Your task to perform on an android device: toggle translation in the chrome app Image 0: 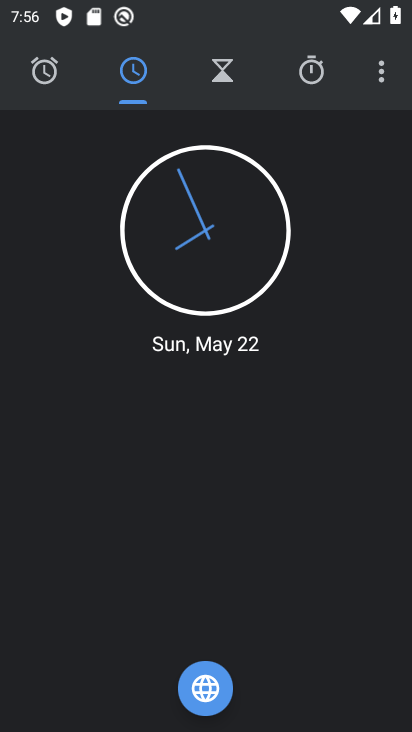
Step 0: press home button
Your task to perform on an android device: toggle translation in the chrome app Image 1: 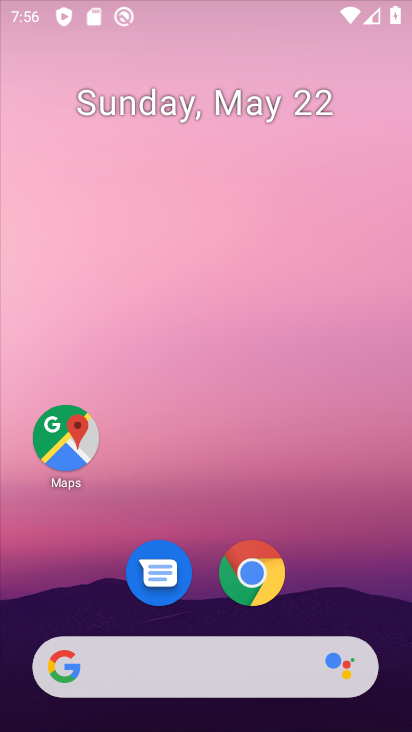
Step 1: drag from (167, 644) to (232, 0)
Your task to perform on an android device: toggle translation in the chrome app Image 2: 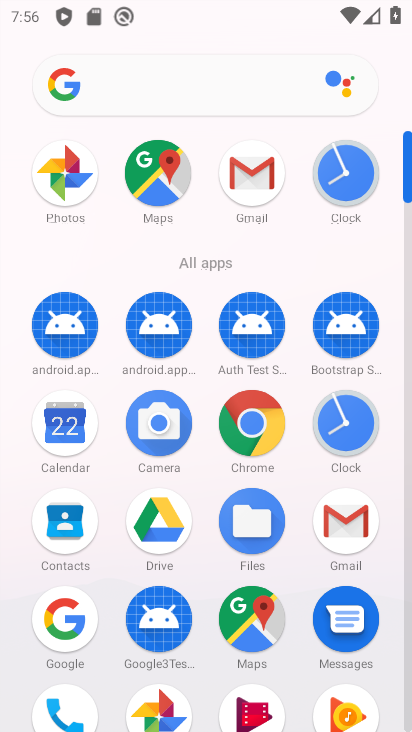
Step 2: click (254, 419)
Your task to perform on an android device: toggle translation in the chrome app Image 3: 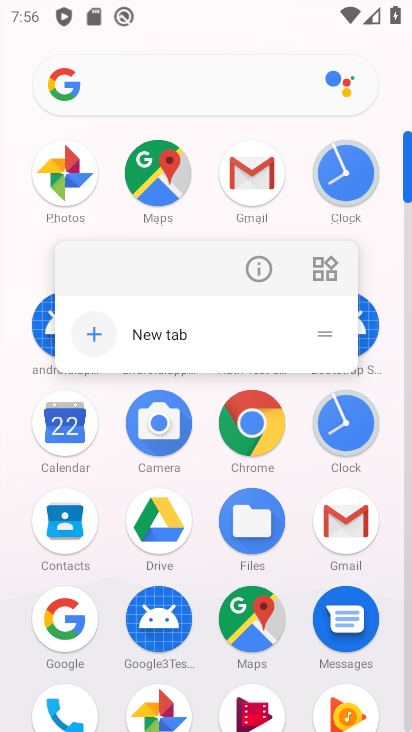
Step 3: click (258, 266)
Your task to perform on an android device: toggle translation in the chrome app Image 4: 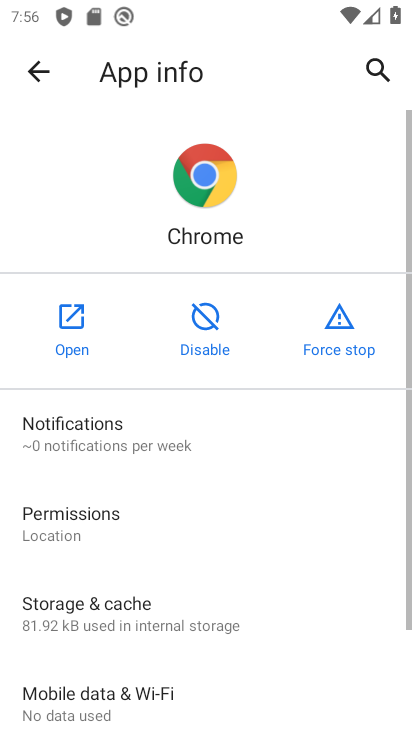
Step 4: click (72, 321)
Your task to perform on an android device: toggle translation in the chrome app Image 5: 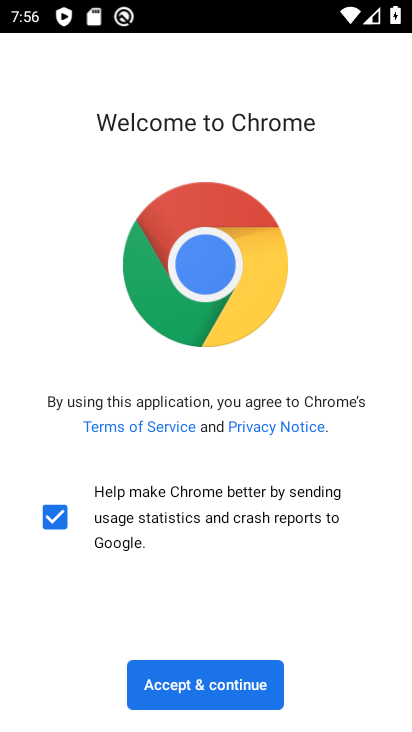
Step 5: click (199, 676)
Your task to perform on an android device: toggle translation in the chrome app Image 6: 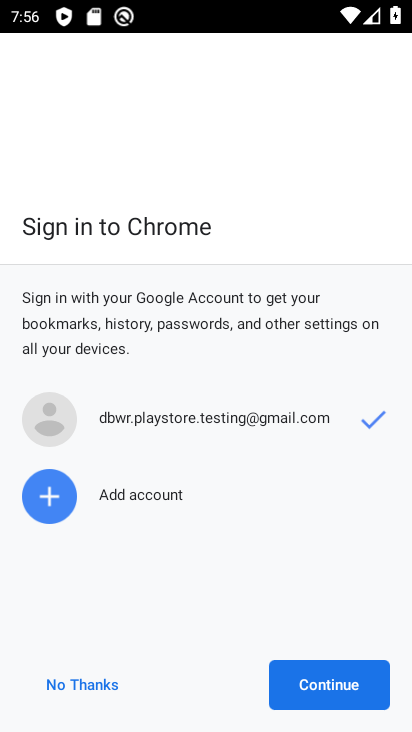
Step 6: click (311, 677)
Your task to perform on an android device: toggle translation in the chrome app Image 7: 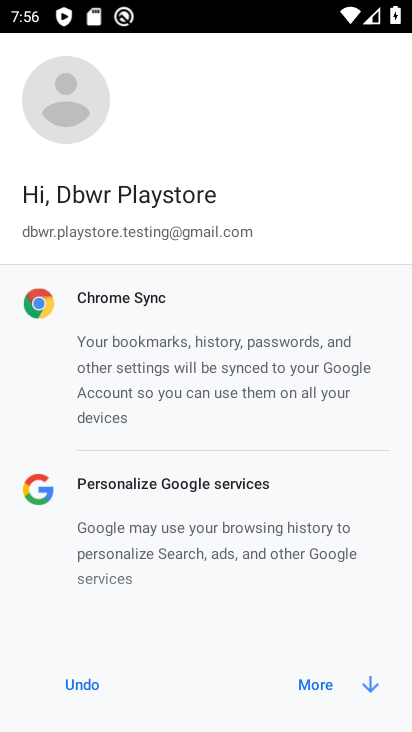
Step 7: click (307, 672)
Your task to perform on an android device: toggle translation in the chrome app Image 8: 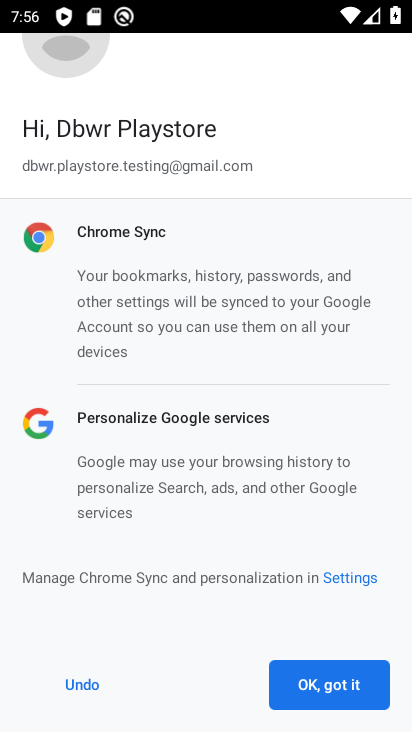
Step 8: click (305, 683)
Your task to perform on an android device: toggle translation in the chrome app Image 9: 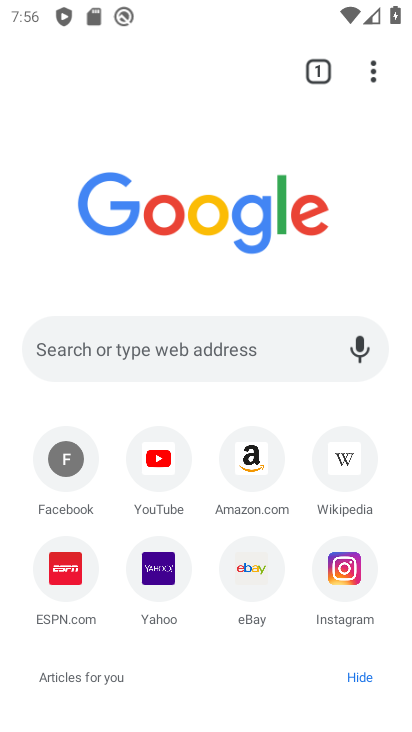
Step 9: click (159, 347)
Your task to perform on an android device: toggle translation in the chrome app Image 10: 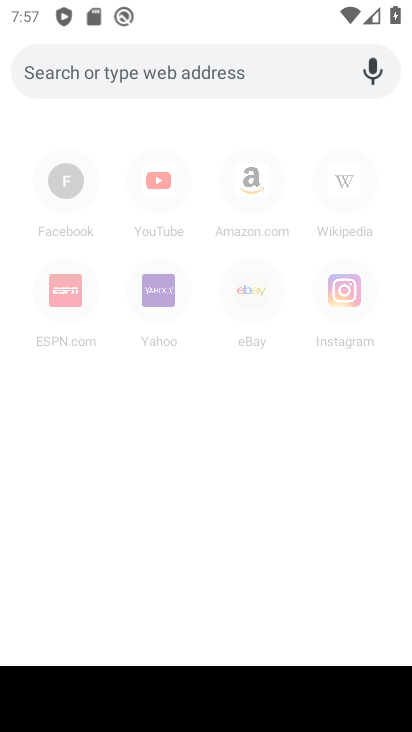
Step 10: click (200, 476)
Your task to perform on an android device: toggle translation in the chrome app Image 11: 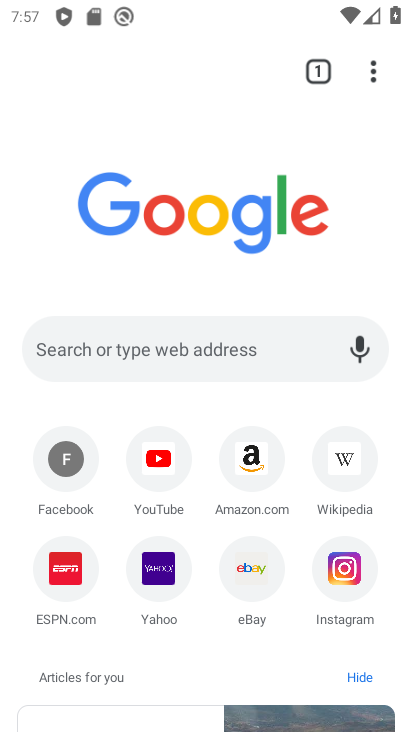
Step 11: click (378, 66)
Your task to perform on an android device: toggle translation in the chrome app Image 12: 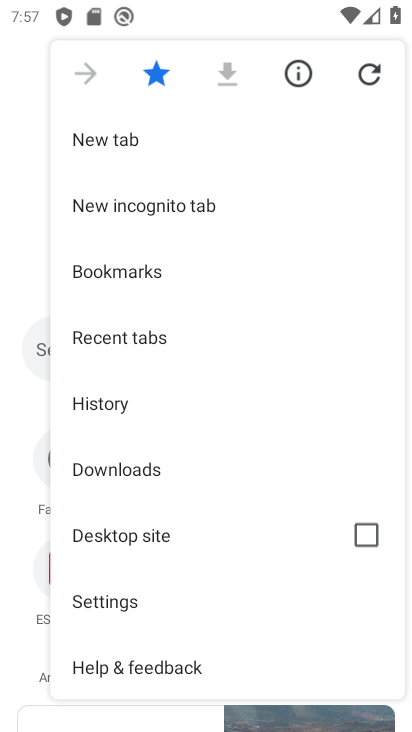
Step 12: drag from (199, 498) to (170, 79)
Your task to perform on an android device: toggle translation in the chrome app Image 13: 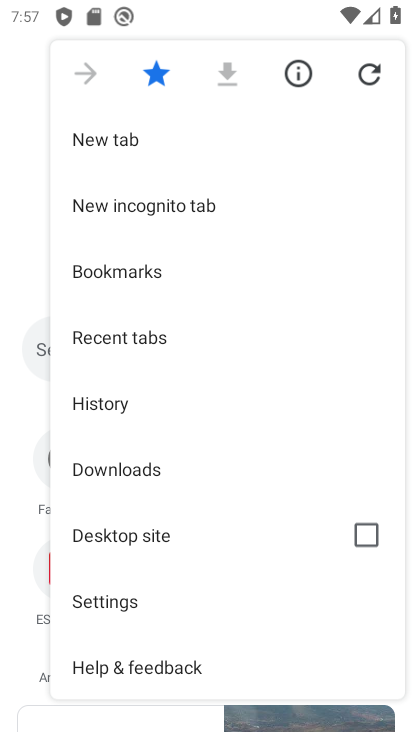
Step 13: click (148, 604)
Your task to perform on an android device: toggle translation in the chrome app Image 14: 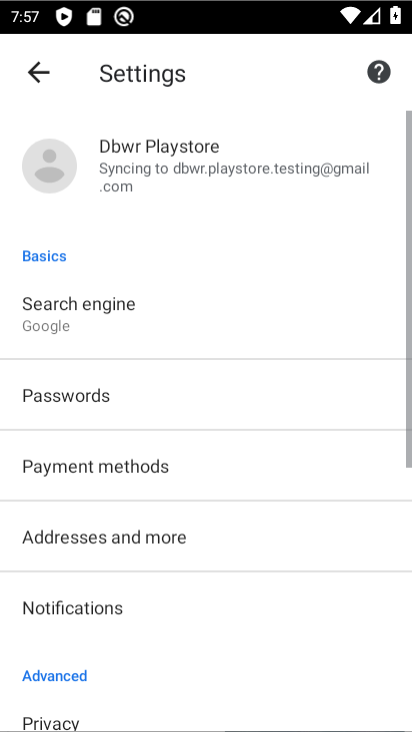
Step 14: drag from (148, 602) to (249, 12)
Your task to perform on an android device: toggle translation in the chrome app Image 15: 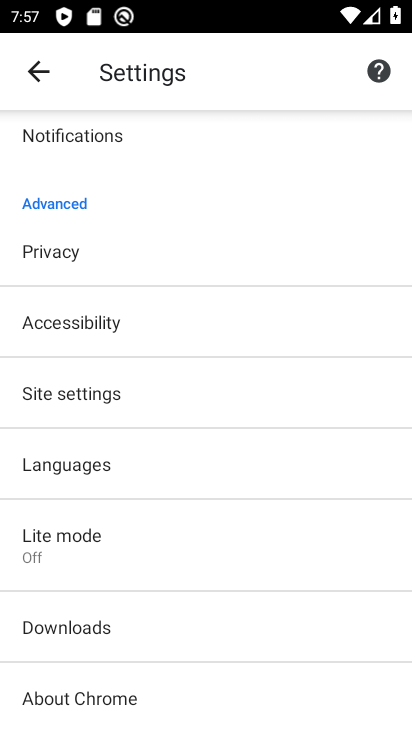
Step 15: click (143, 471)
Your task to perform on an android device: toggle translation in the chrome app Image 16: 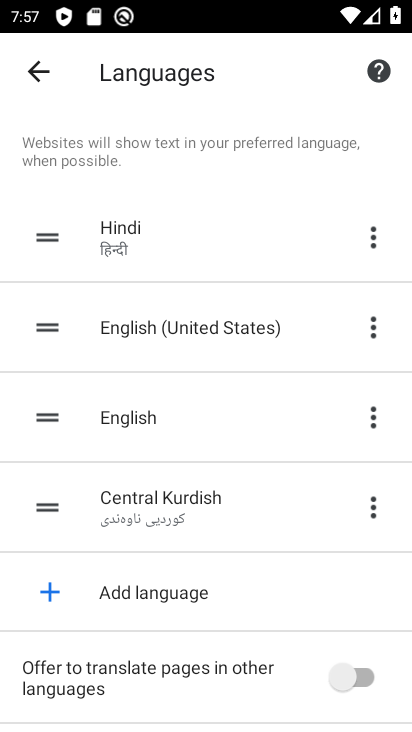
Step 16: drag from (233, 640) to (284, 238)
Your task to perform on an android device: toggle translation in the chrome app Image 17: 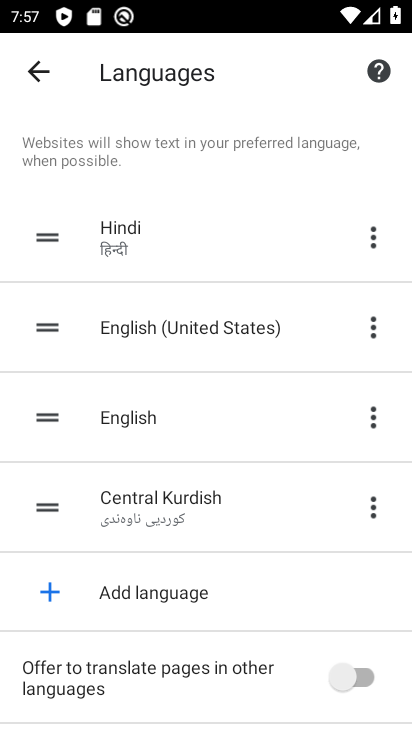
Step 17: drag from (190, 679) to (244, 329)
Your task to perform on an android device: toggle translation in the chrome app Image 18: 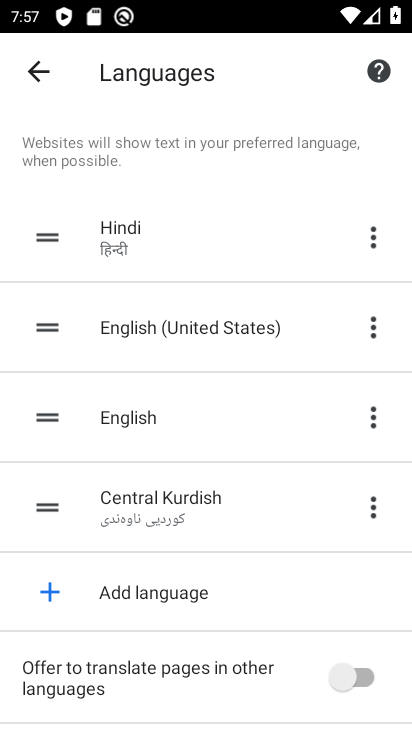
Step 18: click (328, 669)
Your task to perform on an android device: toggle translation in the chrome app Image 19: 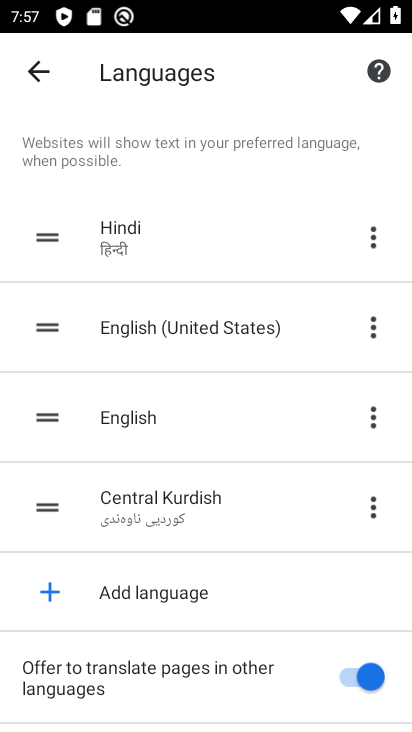
Step 19: task complete